Your task to perform on an android device: add a label to a message in the gmail app Image 0: 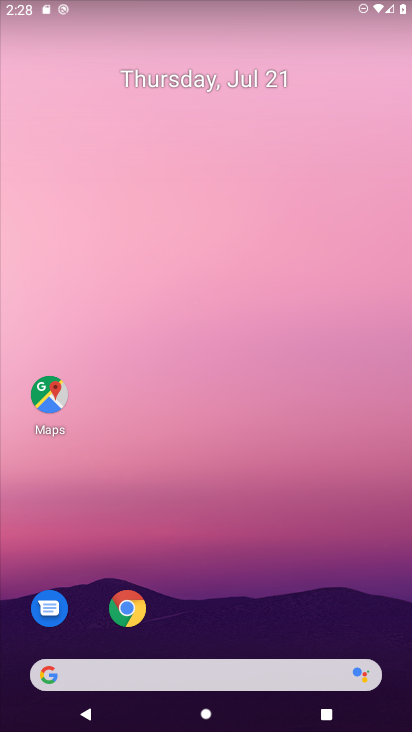
Step 0: drag from (197, 616) to (197, 148)
Your task to perform on an android device: add a label to a message in the gmail app Image 1: 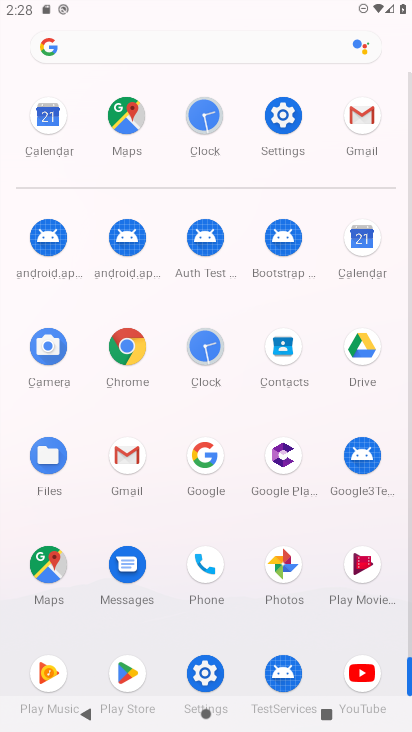
Step 1: click (377, 127)
Your task to perform on an android device: add a label to a message in the gmail app Image 2: 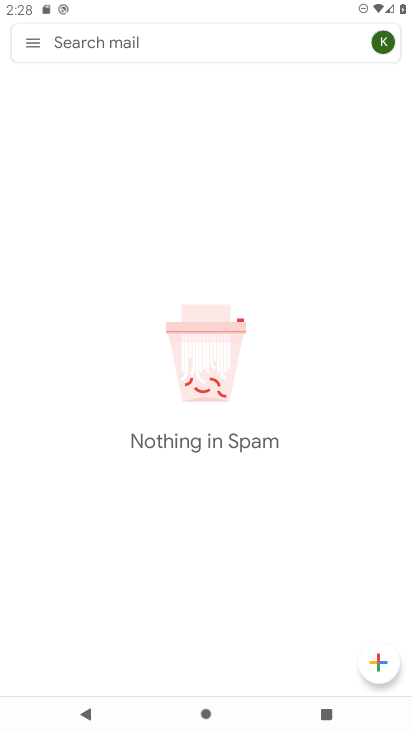
Step 2: click (32, 32)
Your task to perform on an android device: add a label to a message in the gmail app Image 3: 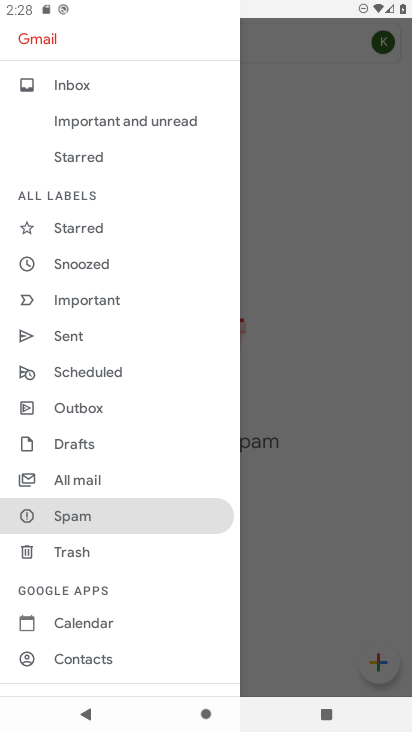
Step 3: click (83, 487)
Your task to perform on an android device: add a label to a message in the gmail app Image 4: 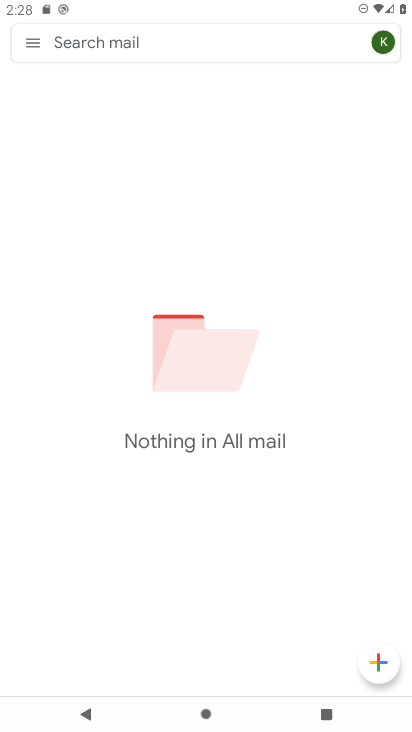
Step 4: task complete